Your task to perform on an android device: turn off notifications in google photos Image 0: 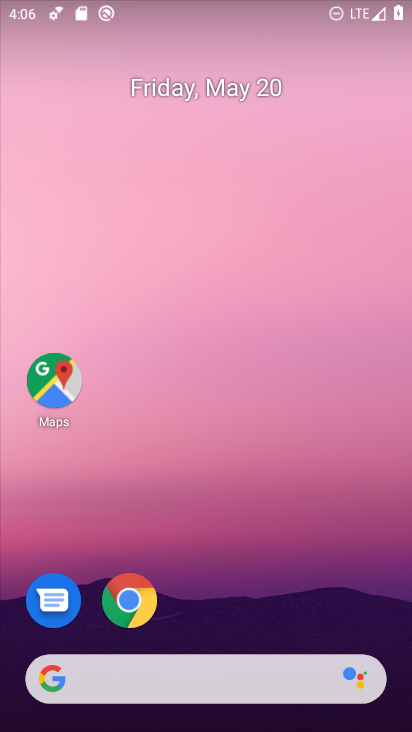
Step 0: drag from (272, 614) to (317, 69)
Your task to perform on an android device: turn off notifications in google photos Image 1: 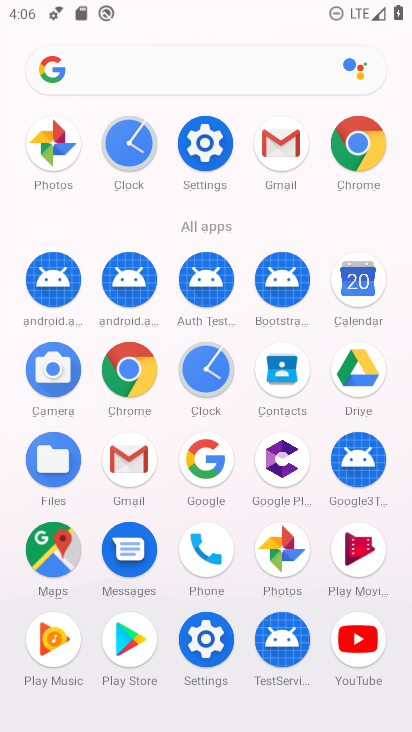
Step 1: click (287, 548)
Your task to perform on an android device: turn off notifications in google photos Image 2: 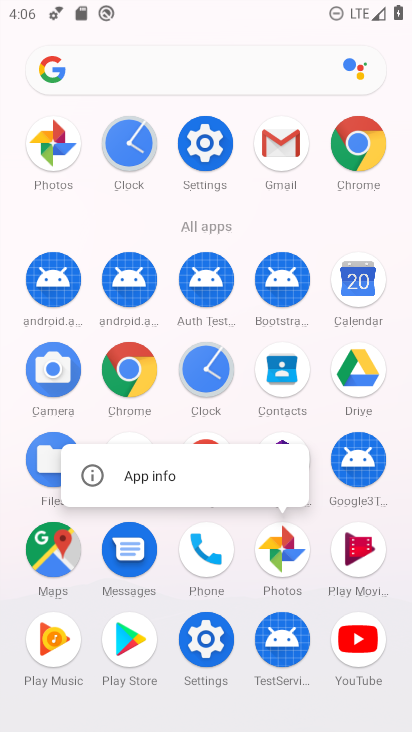
Step 2: click (154, 471)
Your task to perform on an android device: turn off notifications in google photos Image 3: 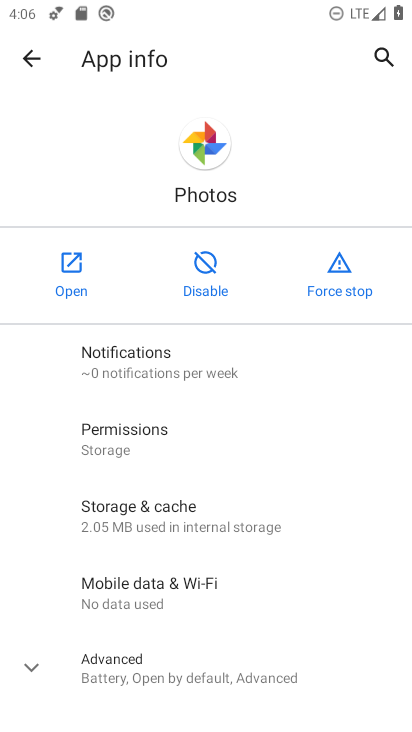
Step 3: click (145, 360)
Your task to perform on an android device: turn off notifications in google photos Image 4: 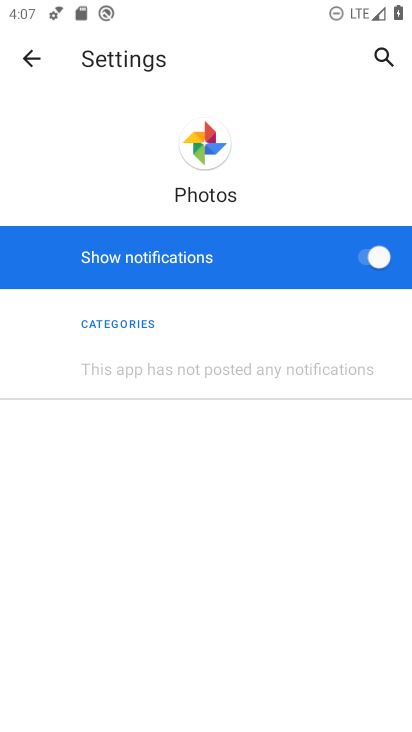
Step 4: click (381, 254)
Your task to perform on an android device: turn off notifications in google photos Image 5: 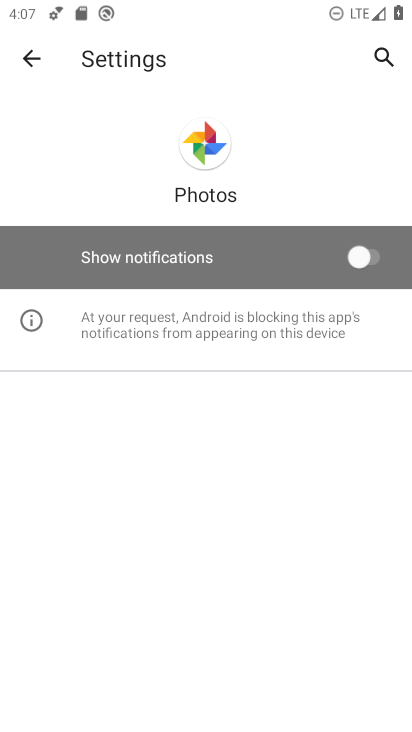
Step 5: task complete